Your task to perform on an android device: check the backup settings in the google photos Image 0: 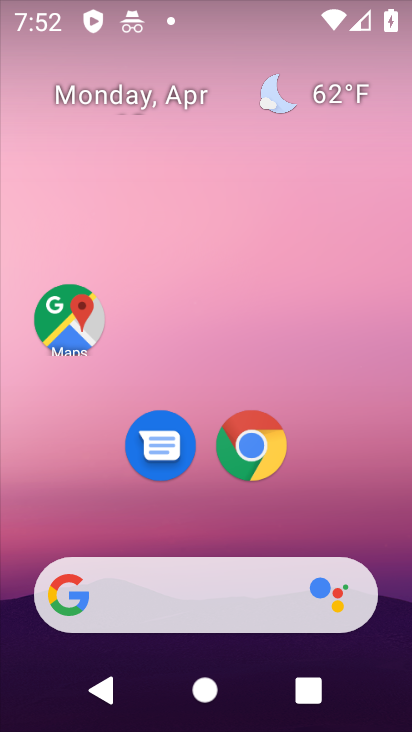
Step 0: drag from (381, 560) to (365, 76)
Your task to perform on an android device: check the backup settings in the google photos Image 1: 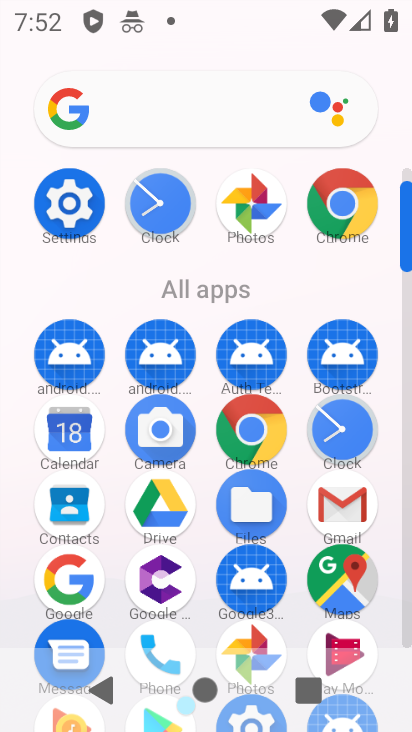
Step 1: click (253, 207)
Your task to perform on an android device: check the backup settings in the google photos Image 2: 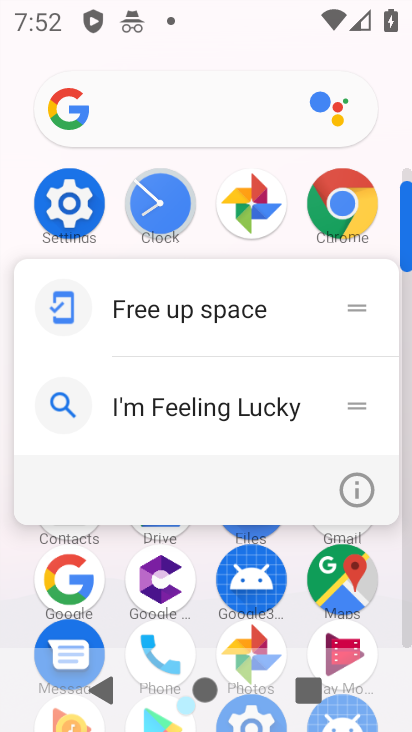
Step 2: click (253, 207)
Your task to perform on an android device: check the backup settings in the google photos Image 3: 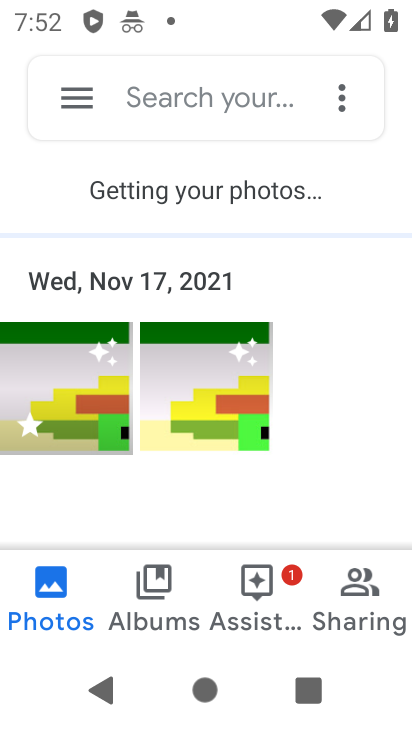
Step 3: click (30, 379)
Your task to perform on an android device: check the backup settings in the google photos Image 4: 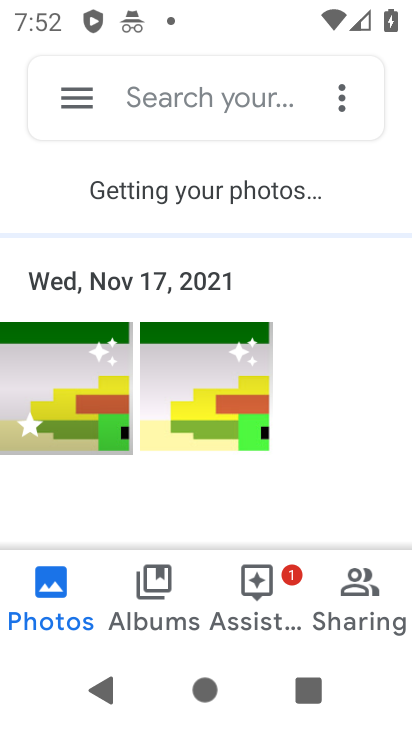
Step 4: click (84, 376)
Your task to perform on an android device: check the backup settings in the google photos Image 5: 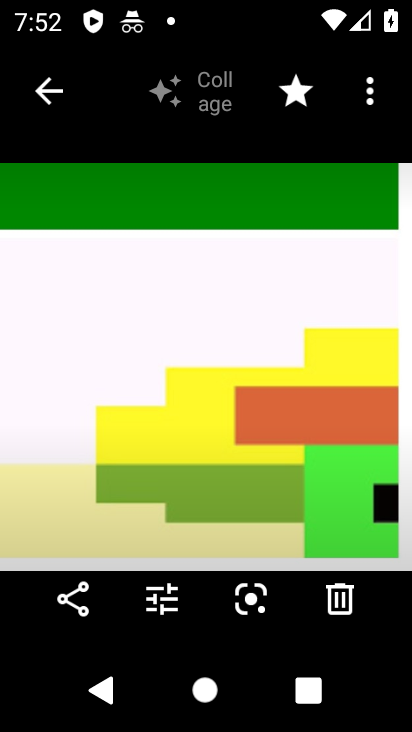
Step 5: click (168, 380)
Your task to perform on an android device: check the backup settings in the google photos Image 6: 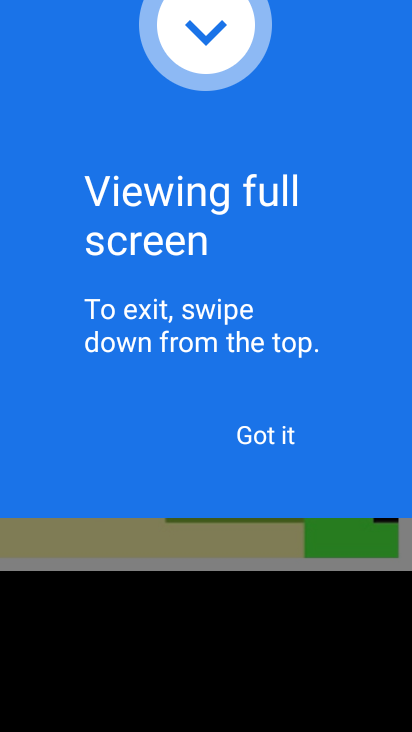
Step 6: task complete